Your task to perform on an android device: search for starred emails in the gmail app Image 0: 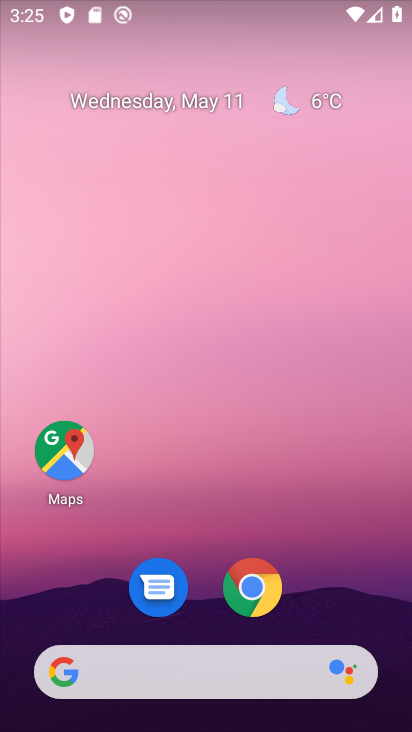
Step 0: drag from (389, 534) to (409, 299)
Your task to perform on an android device: search for starred emails in the gmail app Image 1: 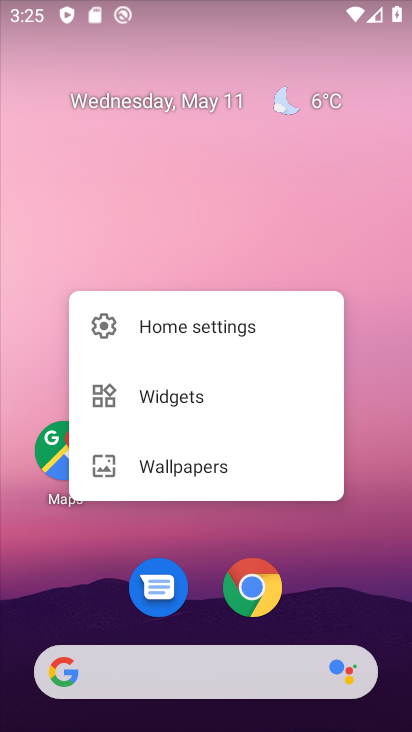
Step 1: click (290, 170)
Your task to perform on an android device: search for starred emails in the gmail app Image 2: 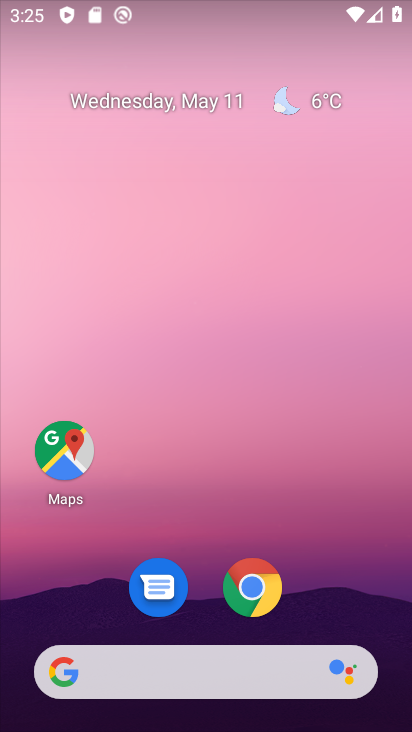
Step 2: drag from (333, 591) to (402, 267)
Your task to perform on an android device: search for starred emails in the gmail app Image 3: 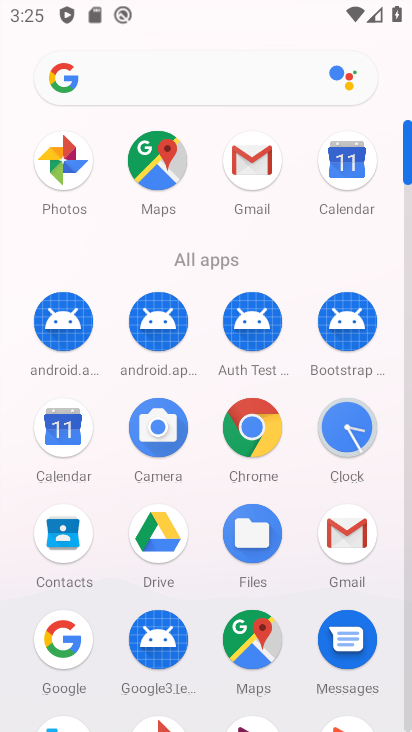
Step 3: click (266, 168)
Your task to perform on an android device: search for starred emails in the gmail app Image 4: 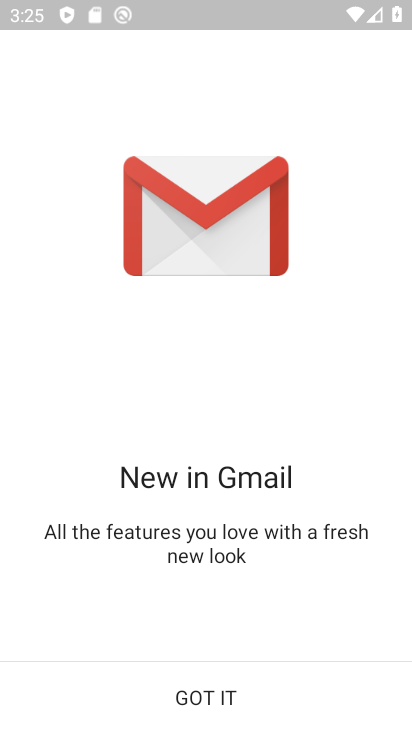
Step 4: task complete